Your task to perform on an android device: set an alarm Image 0: 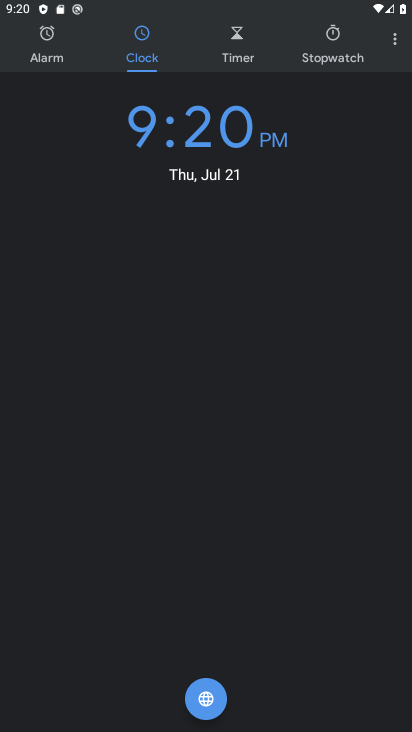
Step 0: click (18, 33)
Your task to perform on an android device: set an alarm Image 1: 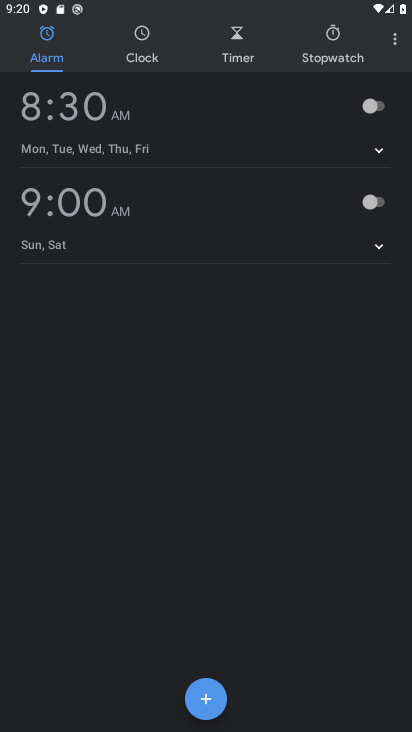
Step 1: task complete